Your task to perform on an android device: empty trash in the gmail app Image 0: 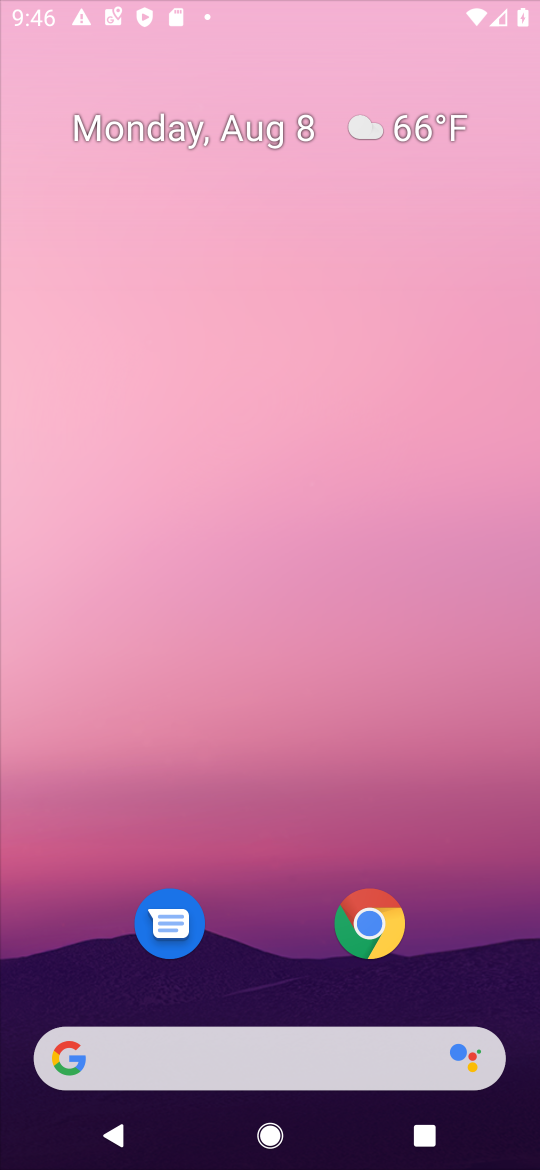
Step 0: press home button
Your task to perform on an android device: empty trash in the gmail app Image 1: 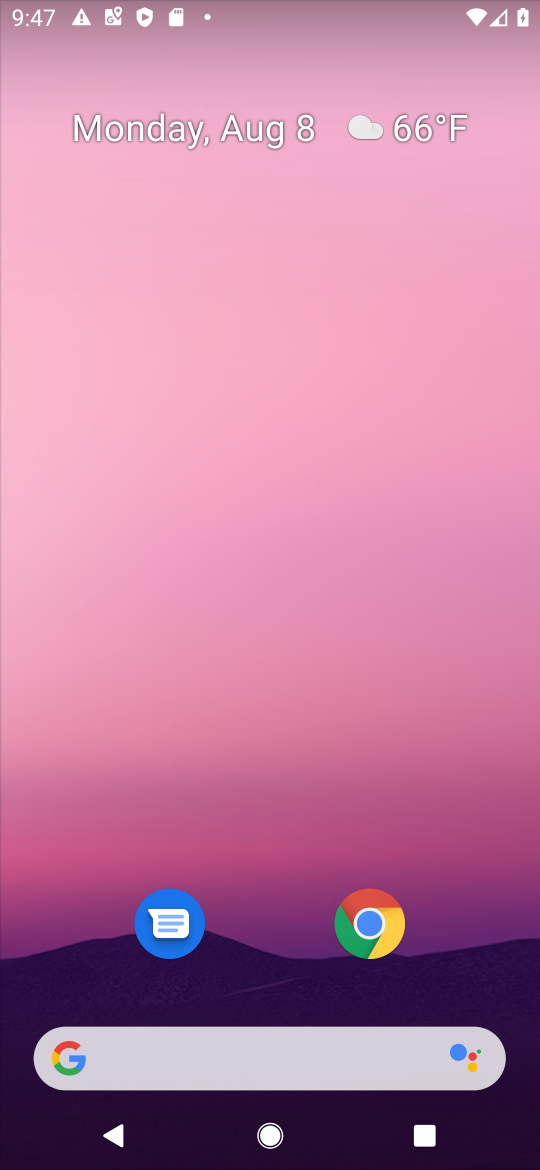
Step 1: drag from (68, 1119) to (262, 257)
Your task to perform on an android device: empty trash in the gmail app Image 2: 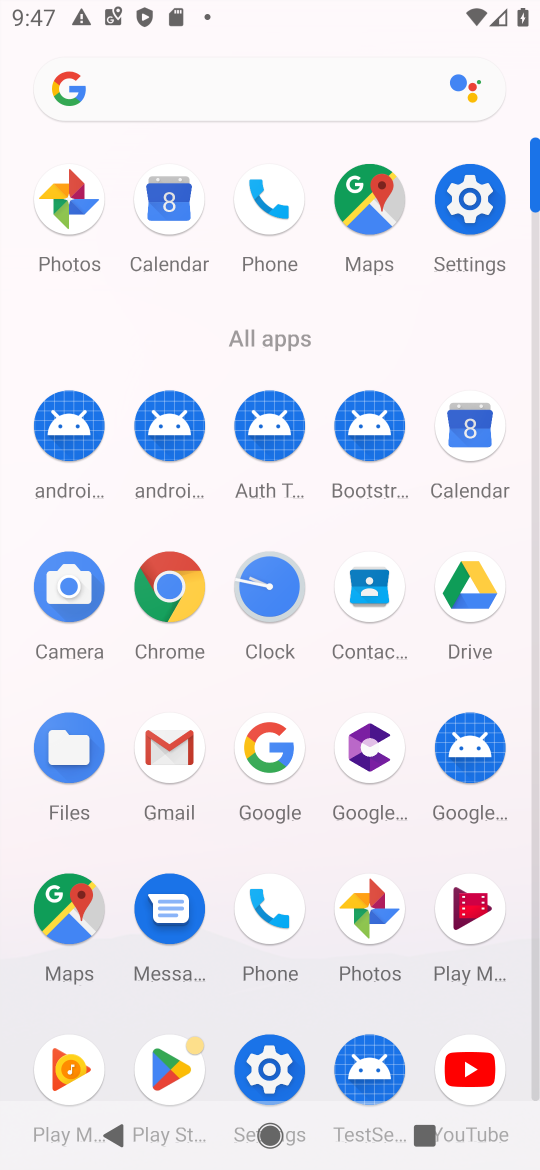
Step 2: click (158, 734)
Your task to perform on an android device: empty trash in the gmail app Image 3: 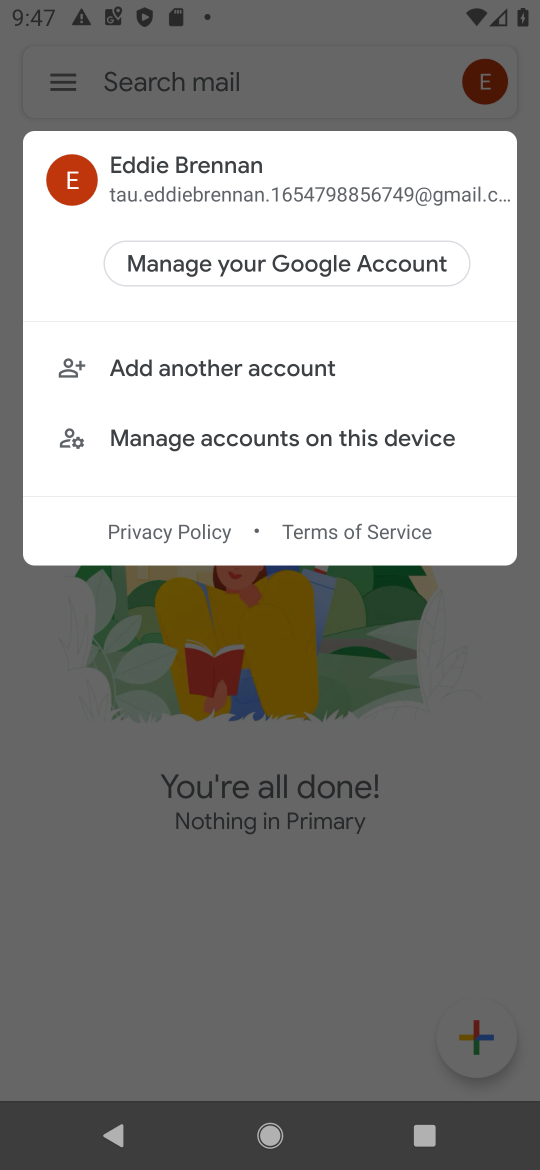
Step 3: click (158, 734)
Your task to perform on an android device: empty trash in the gmail app Image 4: 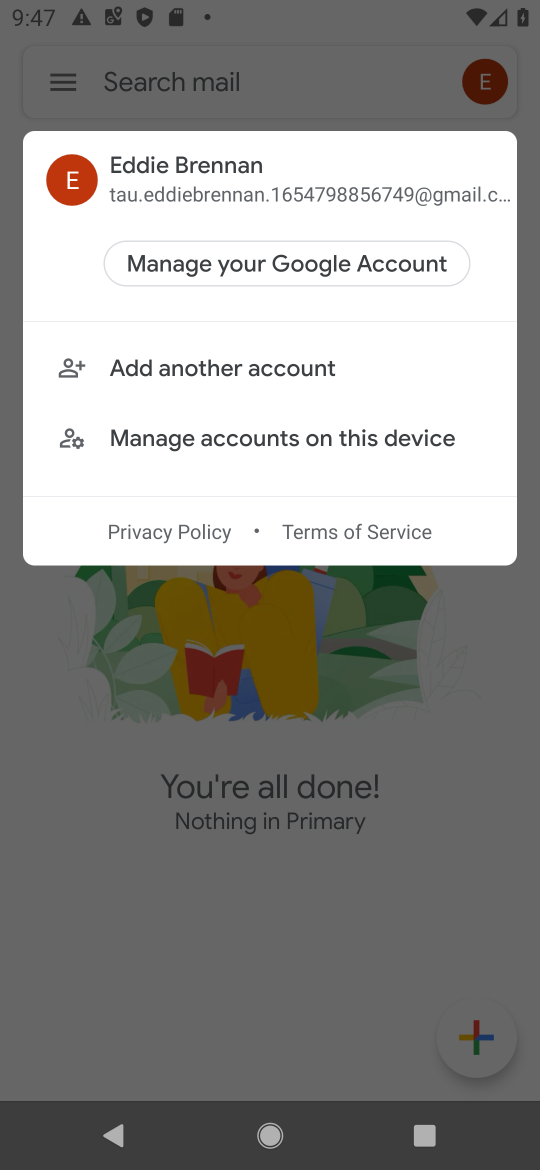
Step 4: click (158, 734)
Your task to perform on an android device: empty trash in the gmail app Image 5: 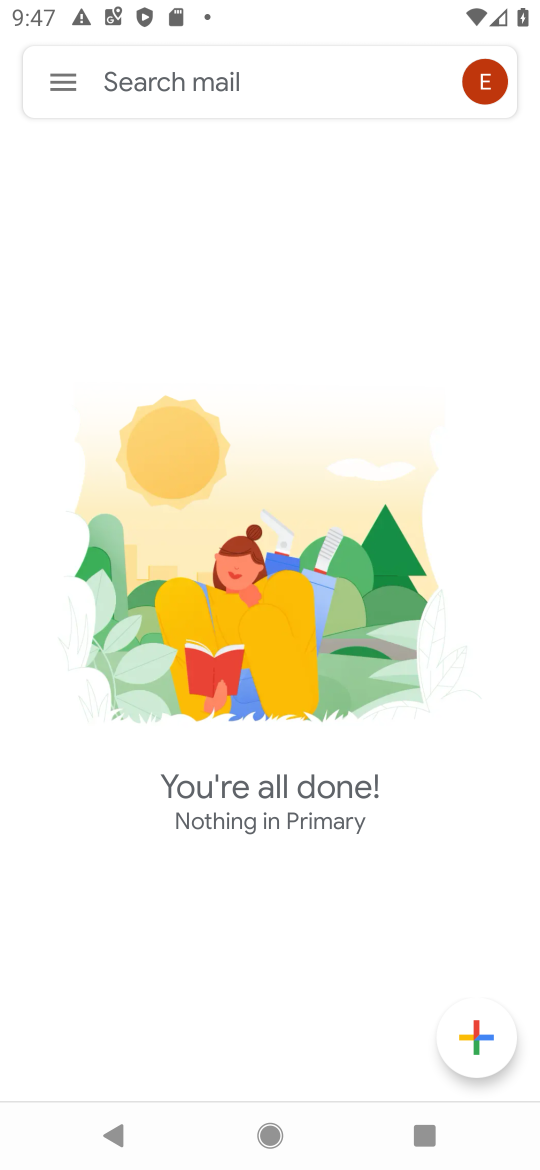
Step 5: click (65, 87)
Your task to perform on an android device: empty trash in the gmail app Image 6: 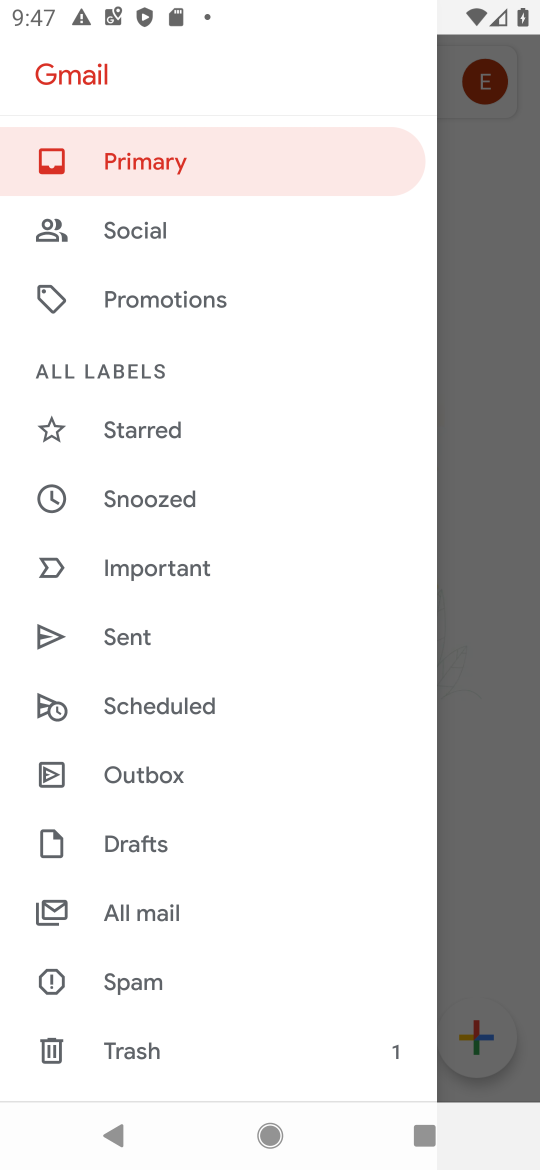
Step 6: click (138, 1036)
Your task to perform on an android device: empty trash in the gmail app Image 7: 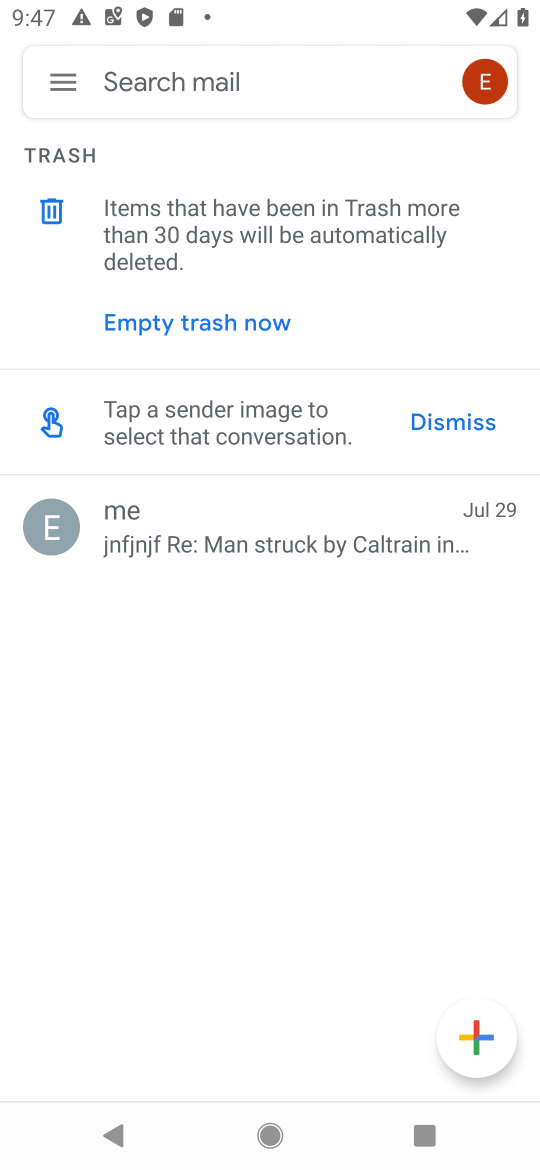
Step 7: click (206, 318)
Your task to perform on an android device: empty trash in the gmail app Image 8: 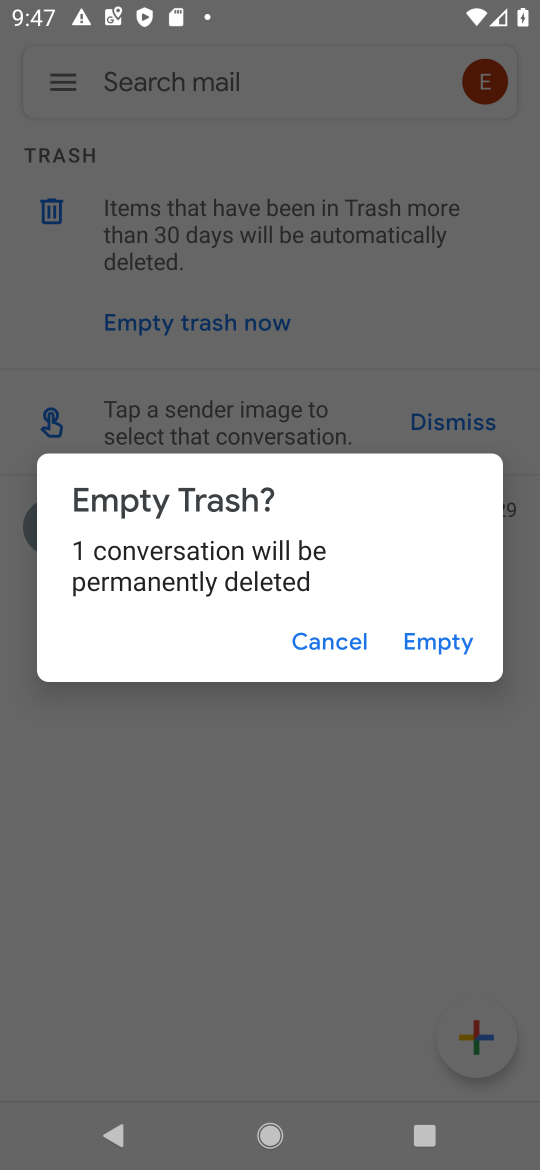
Step 8: click (424, 634)
Your task to perform on an android device: empty trash in the gmail app Image 9: 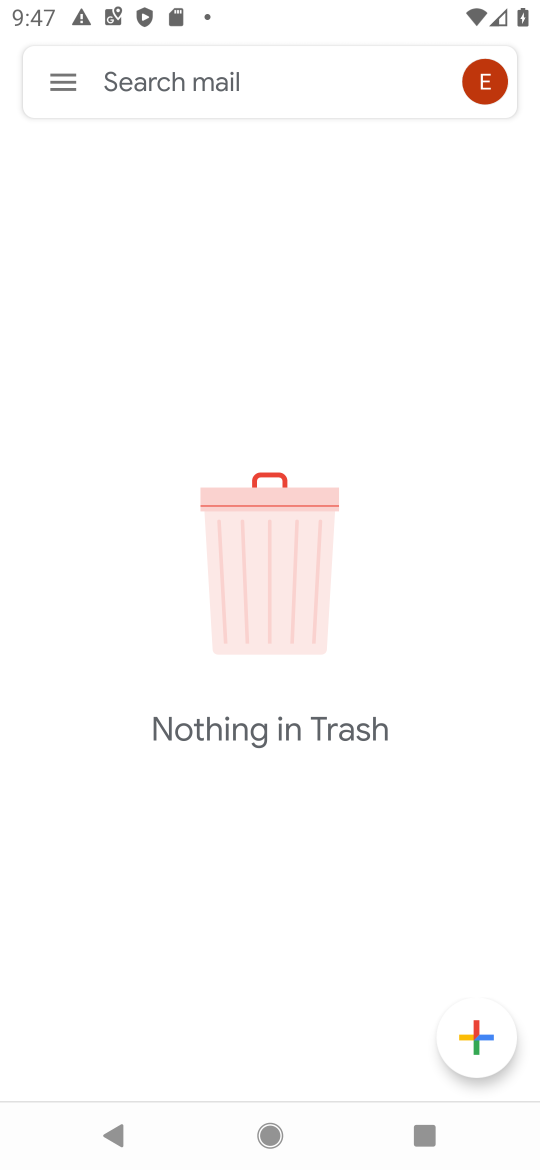
Step 9: task complete